Your task to perform on an android device: Open Google Chrome Image 0: 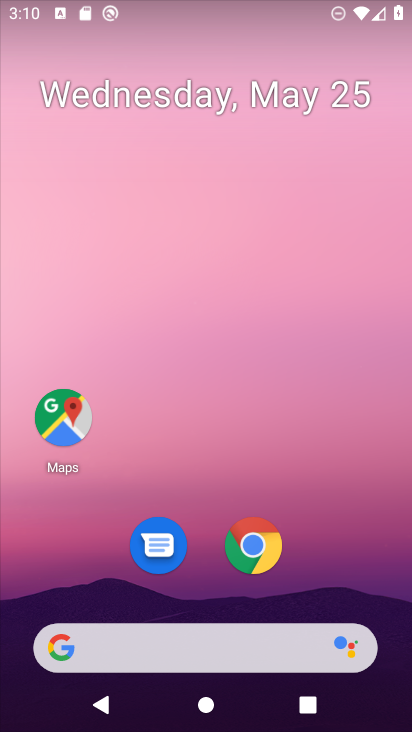
Step 0: click (256, 542)
Your task to perform on an android device: Open Google Chrome Image 1: 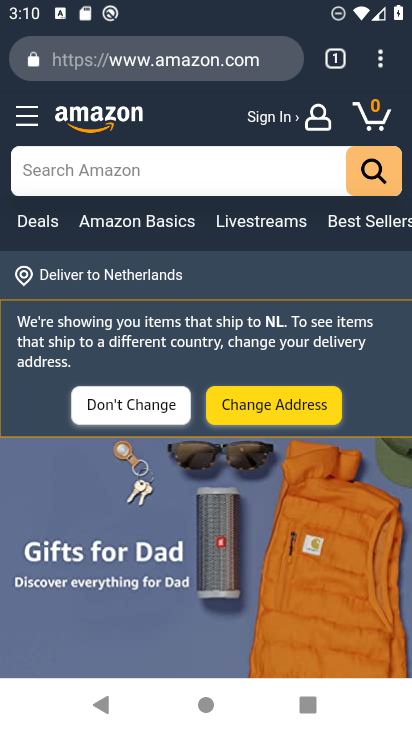
Step 1: click (394, 70)
Your task to perform on an android device: Open Google Chrome Image 2: 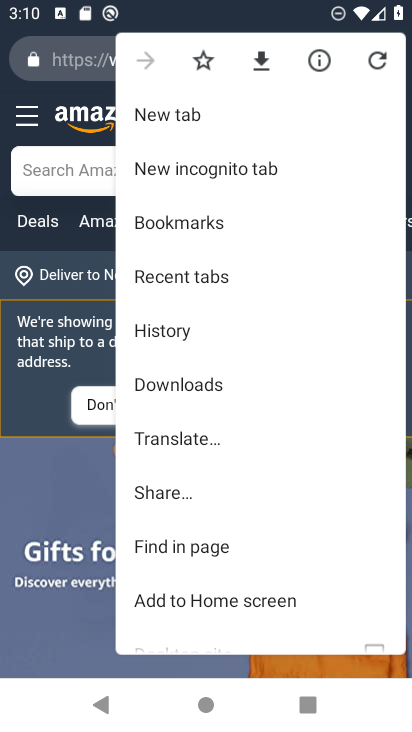
Step 2: task complete